Your task to perform on an android device: toggle airplane mode Image 0: 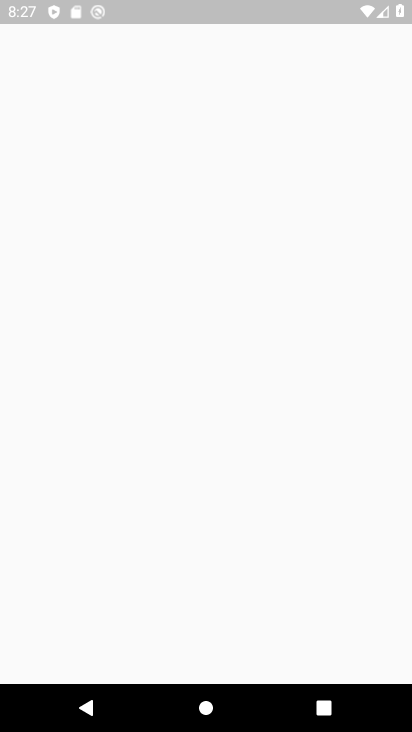
Step 0: press home button
Your task to perform on an android device: toggle airplane mode Image 1: 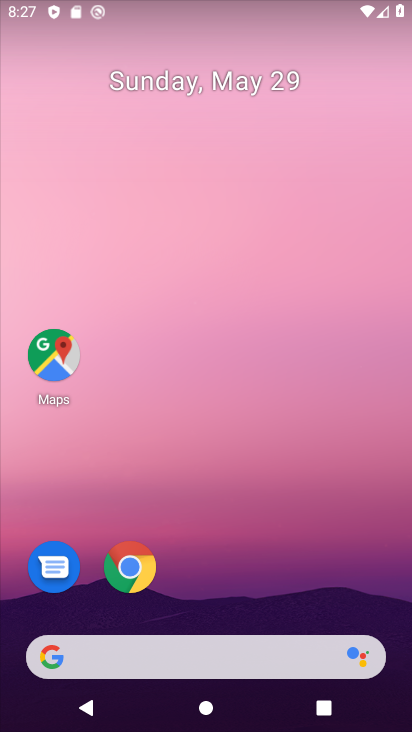
Step 1: drag from (347, 587) to (308, 36)
Your task to perform on an android device: toggle airplane mode Image 2: 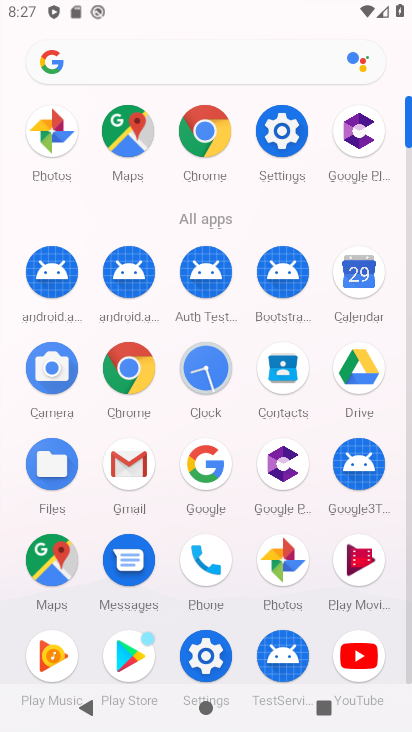
Step 2: click (207, 653)
Your task to perform on an android device: toggle airplane mode Image 3: 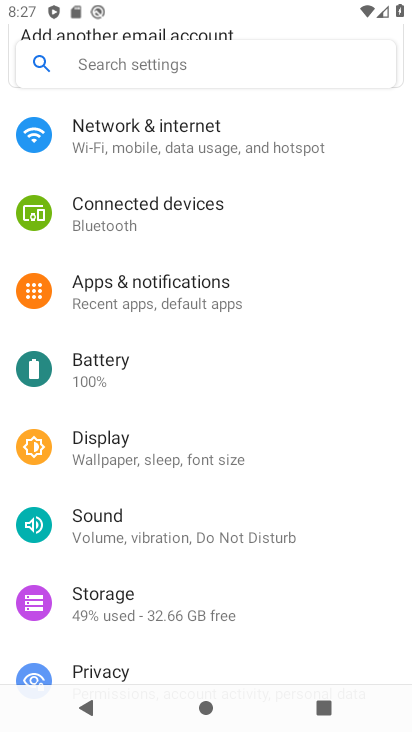
Step 3: click (124, 134)
Your task to perform on an android device: toggle airplane mode Image 4: 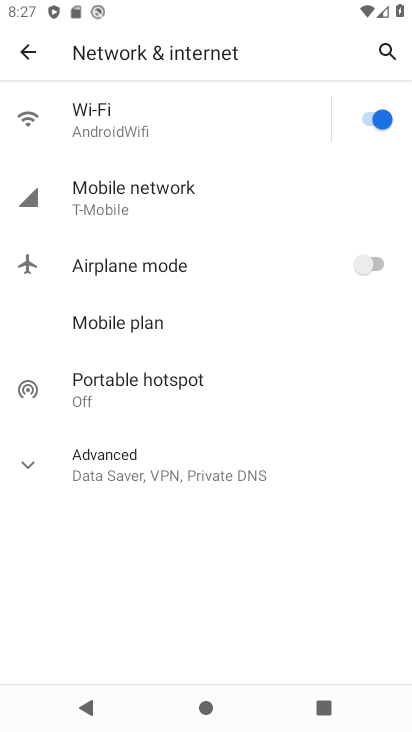
Step 4: click (378, 264)
Your task to perform on an android device: toggle airplane mode Image 5: 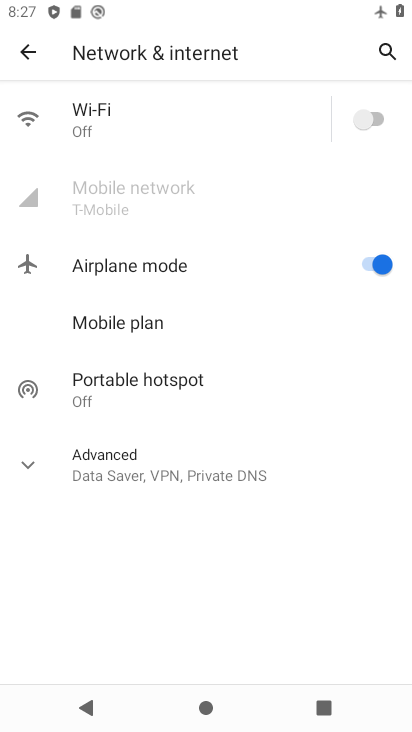
Step 5: task complete